Your task to perform on an android device: What is the recent news? Image 0: 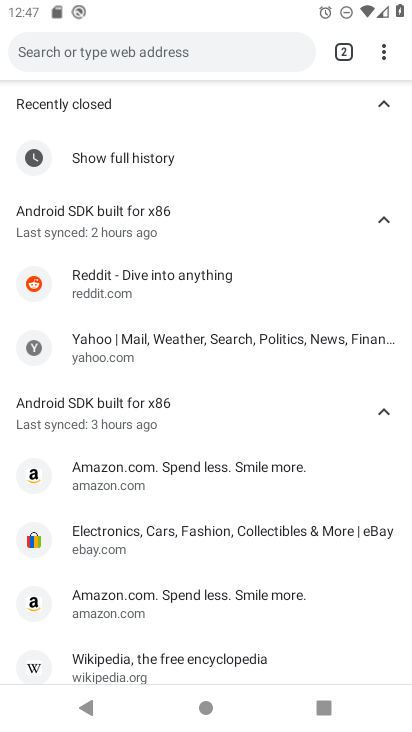
Step 0: press home button
Your task to perform on an android device: What is the recent news? Image 1: 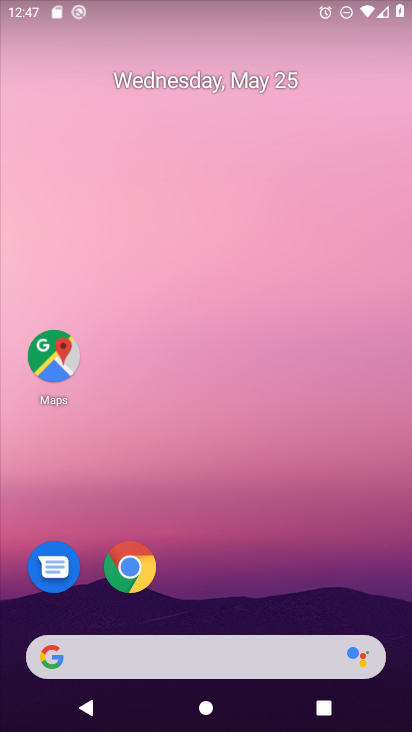
Step 1: task complete